Your task to perform on an android device: Open Yahoo.com Image 0: 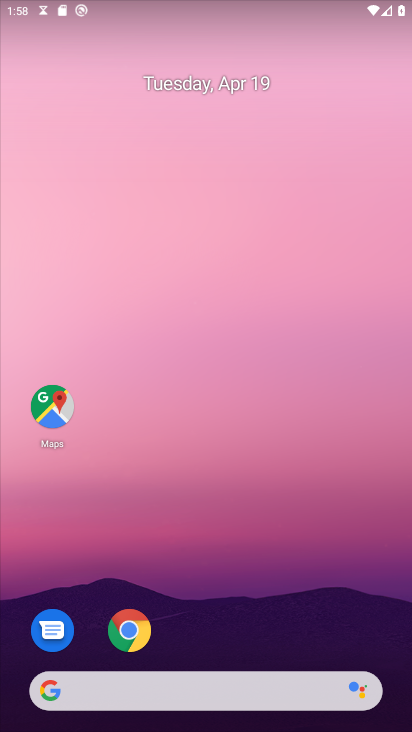
Step 0: click (140, 635)
Your task to perform on an android device: Open Yahoo.com Image 1: 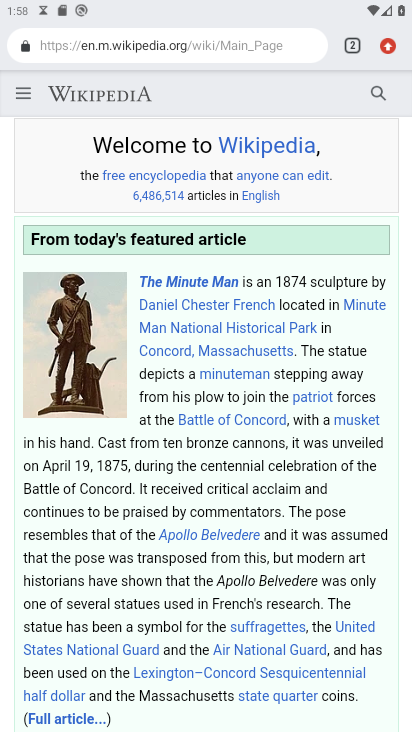
Step 1: click (157, 49)
Your task to perform on an android device: Open Yahoo.com Image 2: 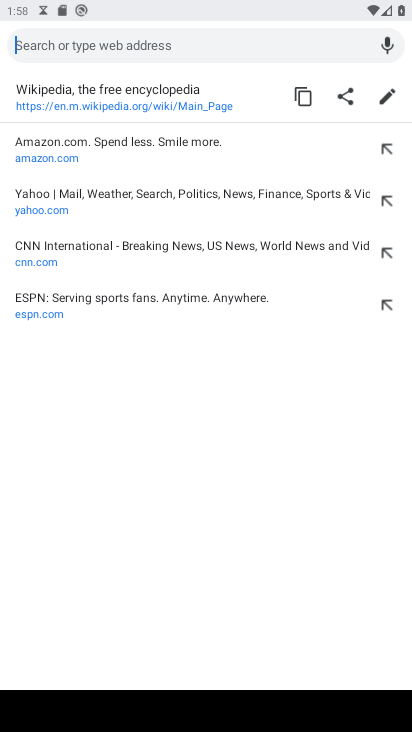
Step 2: type "yahoo.com"
Your task to perform on an android device: Open Yahoo.com Image 3: 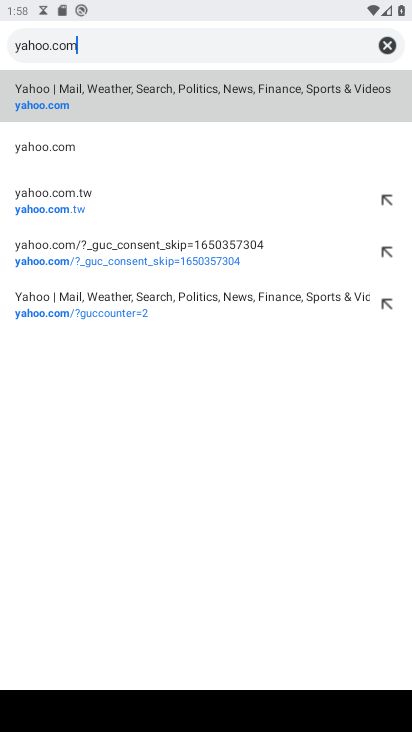
Step 3: click (198, 103)
Your task to perform on an android device: Open Yahoo.com Image 4: 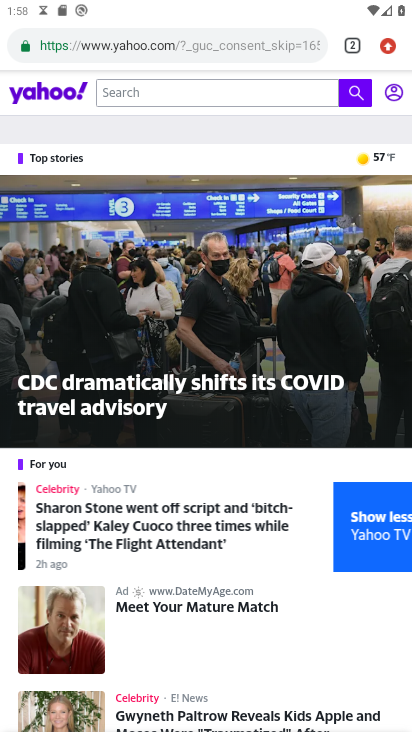
Step 4: task complete